Your task to perform on an android device: Is it going to rain tomorrow? Image 0: 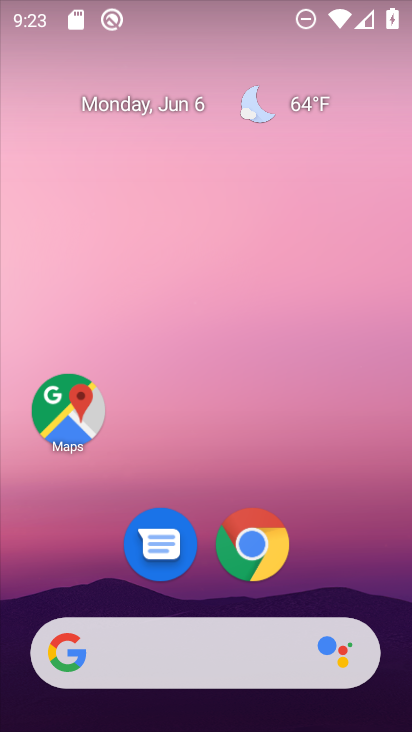
Step 0: click (299, 99)
Your task to perform on an android device: Is it going to rain tomorrow? Image 1: 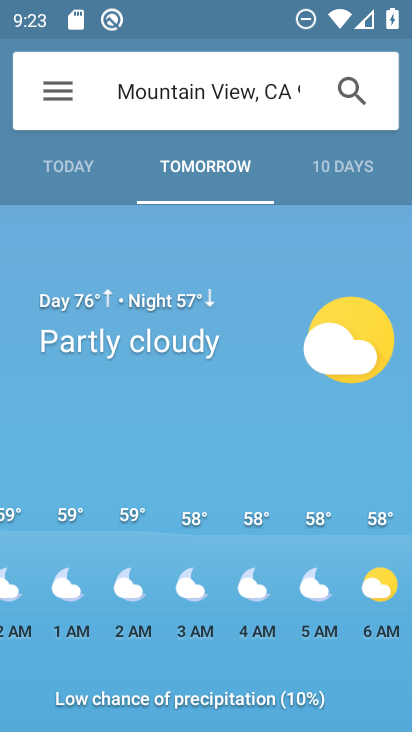
Step 1: click (327, 590)
Your task to perform on an android device: Is it going to rain tomorrow? Image 2: 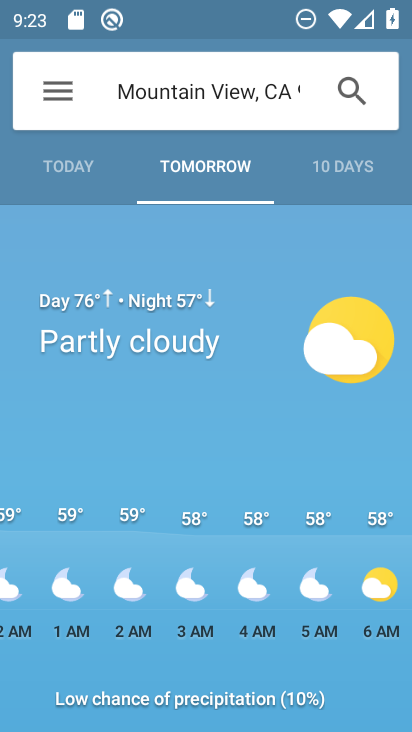
Step 2: task complete